Your task to perform on an android device: Search for seafood restaurants on Google Maps Image 0: 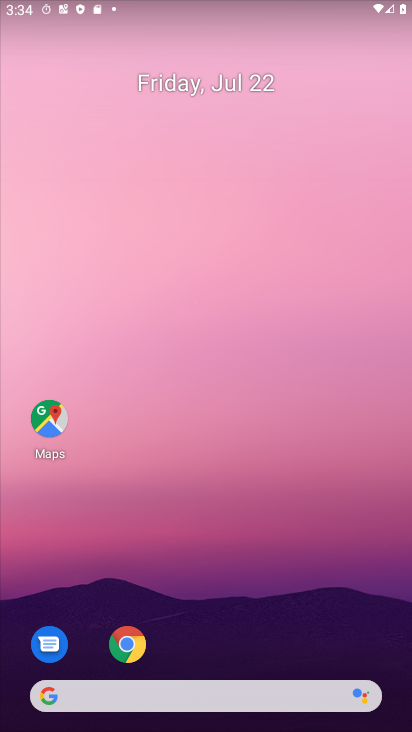
Step 0: press home button
Your task to perform on an android device: Search for seafood restaurants on Google Maps Image 1: 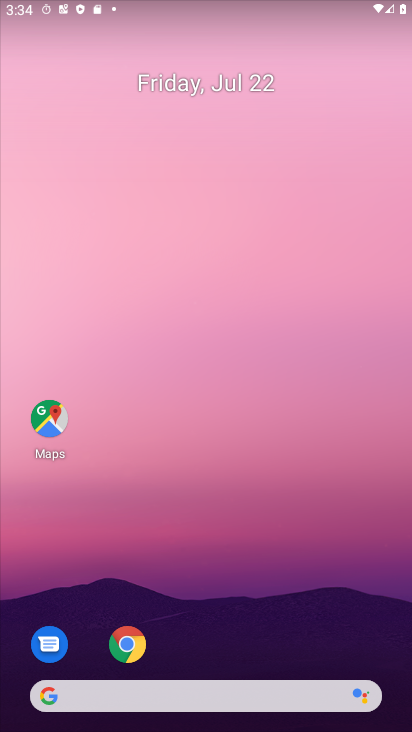
Step 1: drag from (231, 656) to (205, 73)
Your task to perform on an android device: Search for seafood restaurants on Google Maps Image 2: 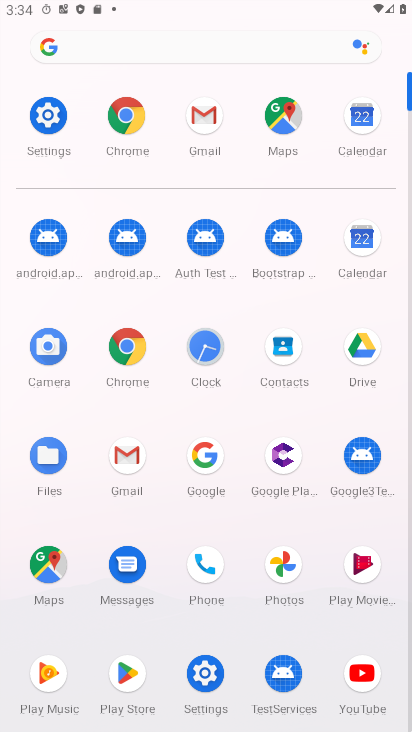
Step 2: click (279, 121)
Your task to perform on an android device: Search for seafood restaurants on Google Maps Image 3: 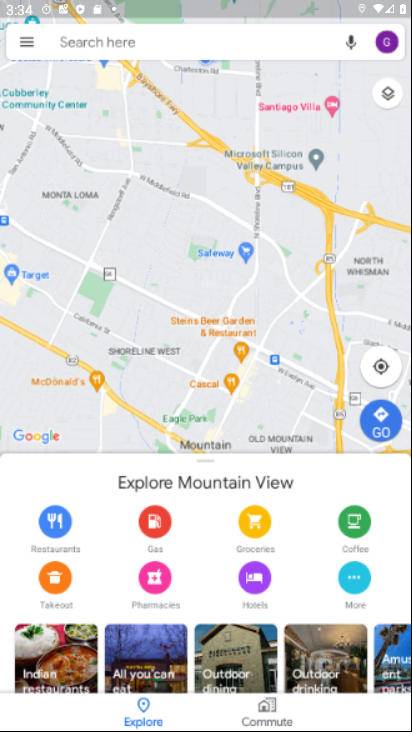
Step 3: click (183, 43)
Your task to perform on an android device: Search for seafood restaurants on Google Maps Image 4: 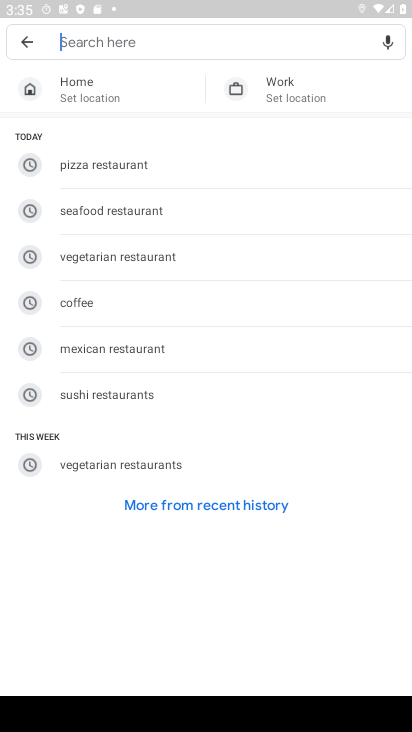
Step 4: click (121, 216)
Your task to perform on an android device: Search for seafood restaurants on Google Maps Image 5: 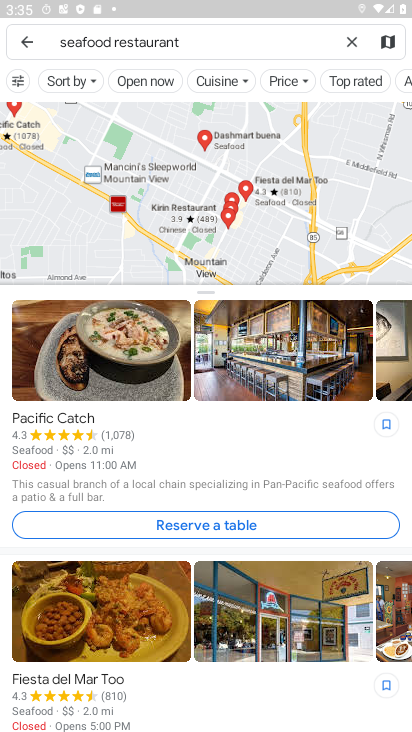
Step 5: task complete